Your task to perform on an android device: turn off notifications in google photos Image 0: 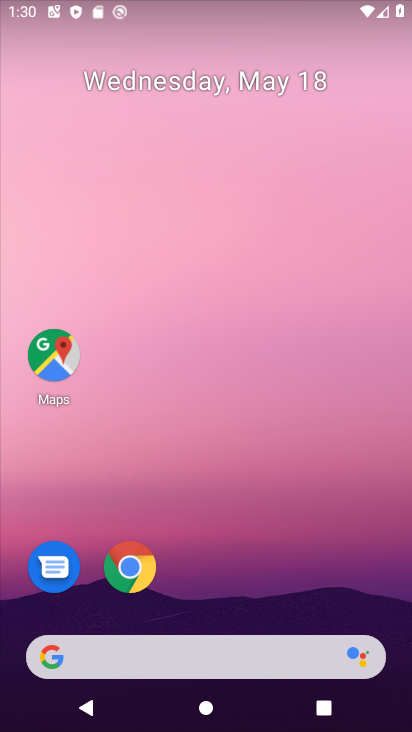
Step 0: drag from (272, 551) to (312, 119)
Your task to perform on an android device: turn off notifications in google photos Image 1: 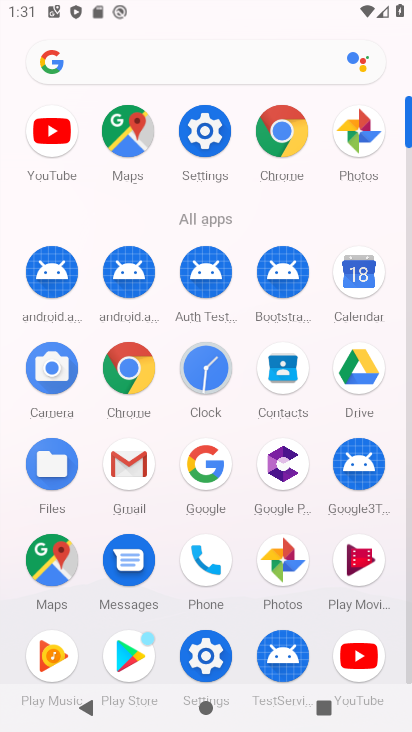
Step 1: click (358, 120)
Your task to perform on an android device: turn off notifications in google photos Image 2: 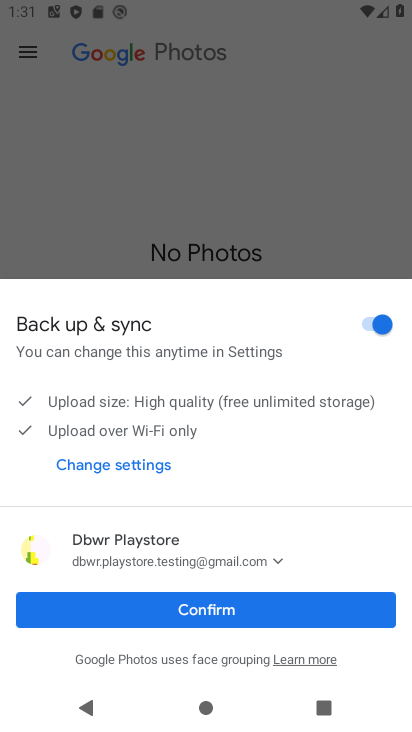
Step 2: click (165, 610)
Your task to perform on an android device: turn off notifications in google photos Image 3: 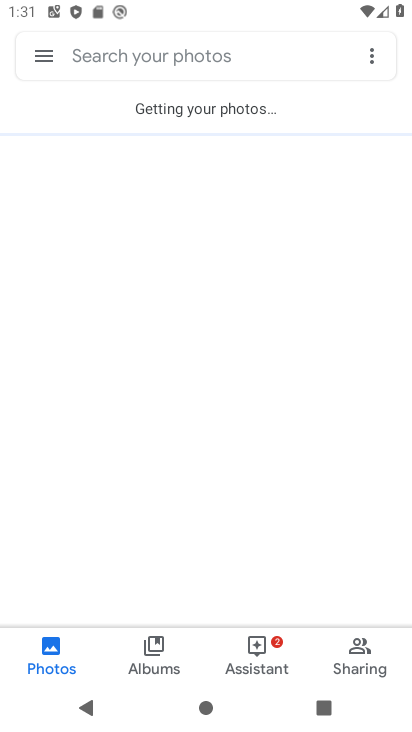
Step 3: click (40, 50)
Your task to perform on an android device: turn off notifications in google photos Image 4: 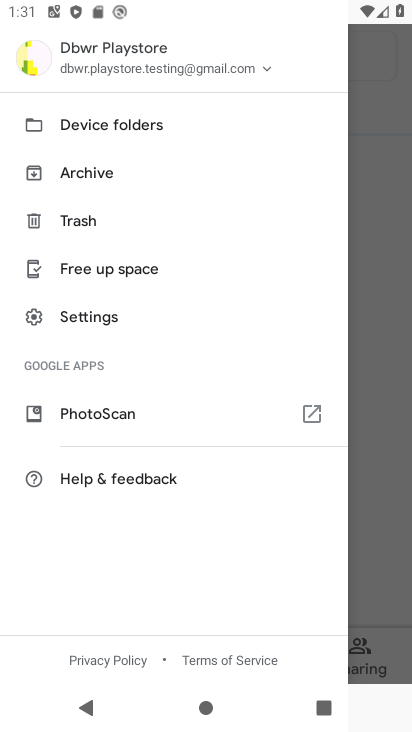
Step 4: click (83, 311)
Your task to perform on an android device: turn off notifications in google photos Image 5: 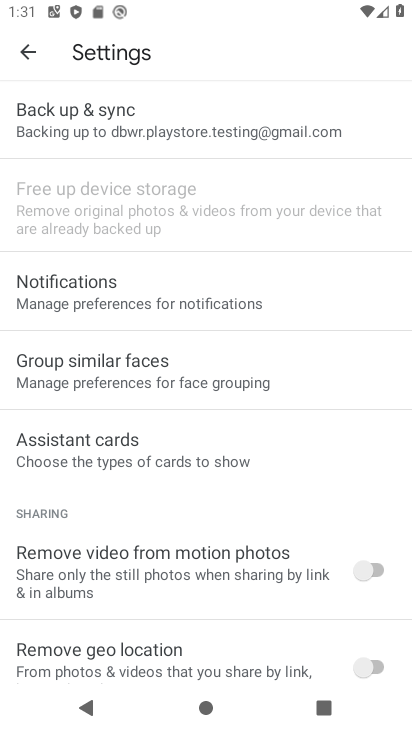
Step 5: drag from (146, 569) to (206, 656)
Your task to perform on an android device: turn off notifications in google photos Image 6: 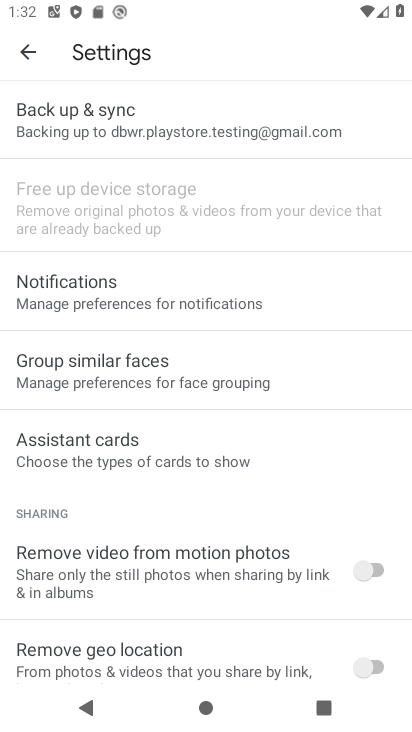
Step 6: click (124, 291)
Your task to perform on an android device: turn off notifications in google photos Image 7: 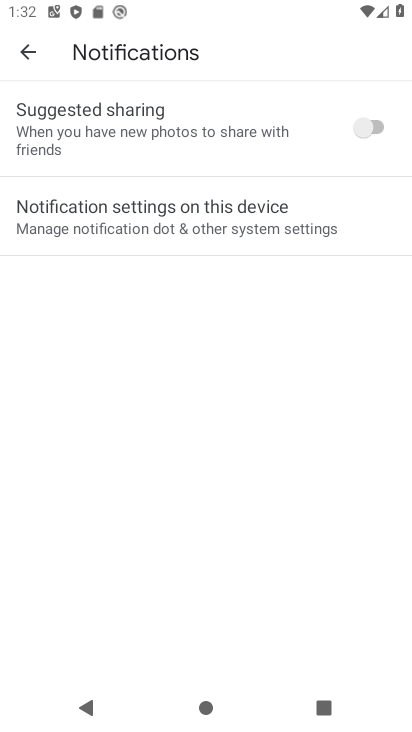
Step 7: click (65, 225)
Your task to perform on an android device: turn off notifications in google photos Image 8: 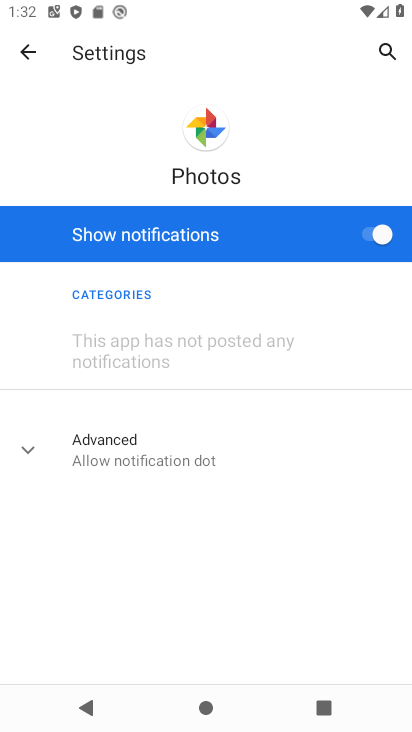
Step 8: click (378, 226)
Your task to perform on an android device: turn off notifications in google photos Image 9: 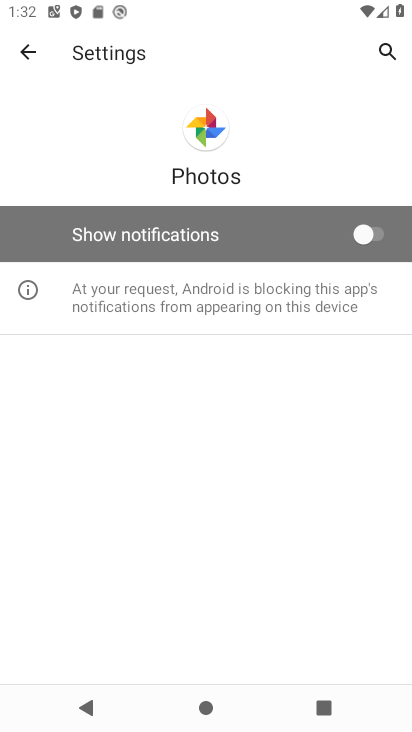
Step 9: task complete